Your task to perform on an android device: change timer sound Image 0: 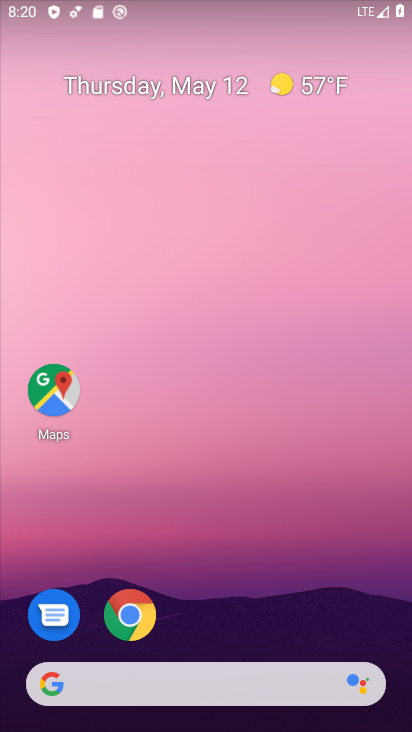
Step 0: drag from (277, 552) to (255, 1)
Your task to perform on an android device: change timer sound Image 1: 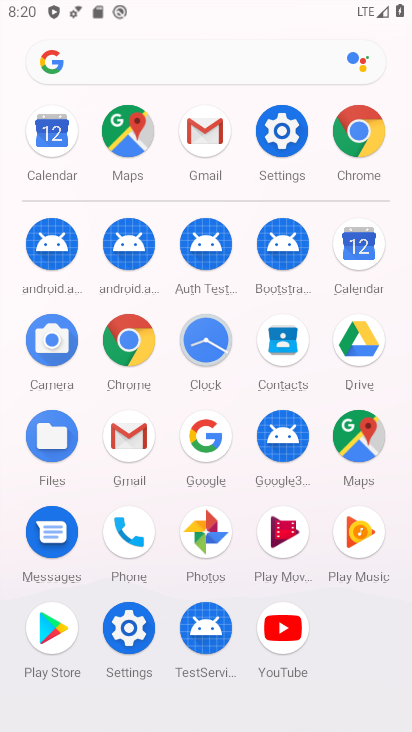
Step 1: drag from (10, 561) to (7, 305)
Your task to perform on an android device: change timer sound Image 2: 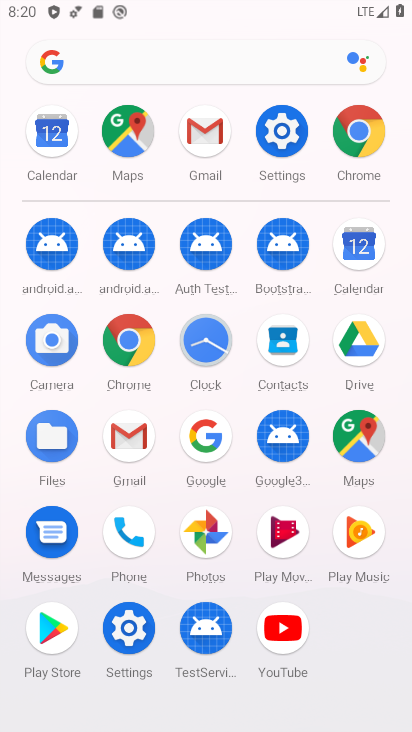
Step 2: click (205, 333)
Your task to perform on an android device: change timer sound Image 3: 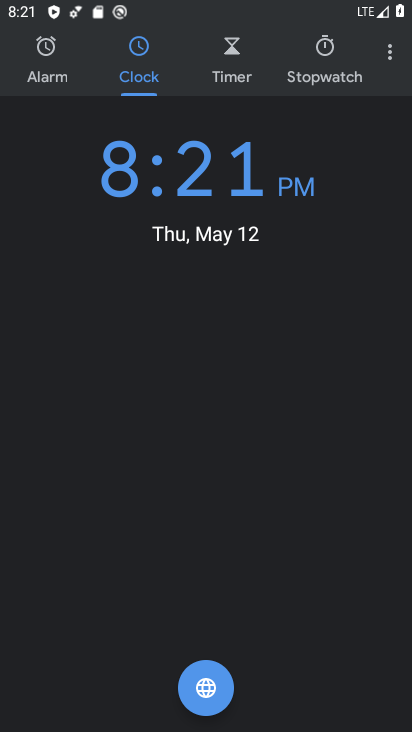
Step 3: drag from (393, 57) to (275, 109)
Your task to perform on an android device: change timer sound Image 4: 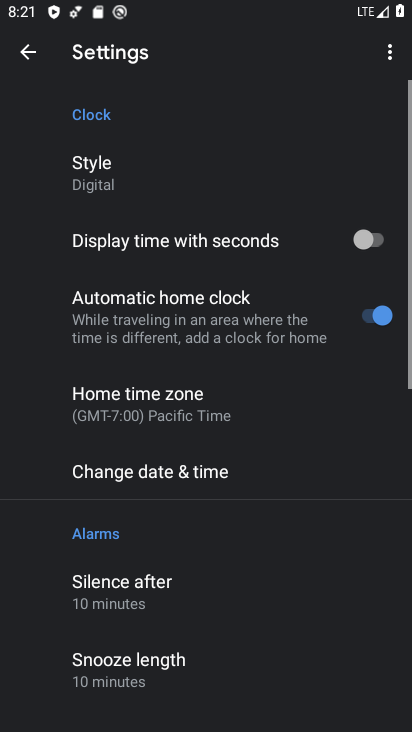
Step 4: drag from (252, 547) to (242, 185)
Your task to perform on an android device: change timer sound Image 5: 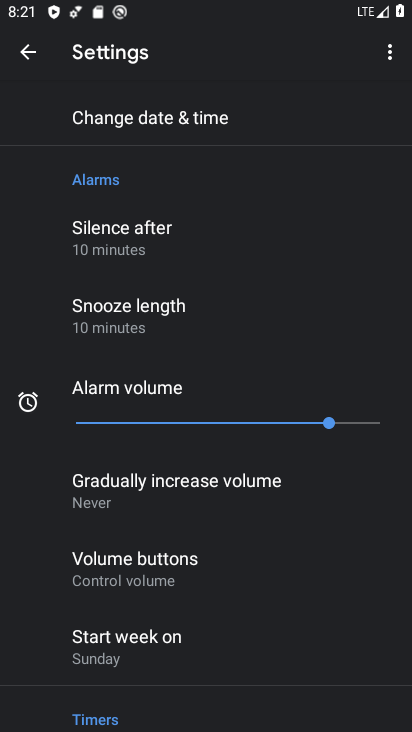
Step 5: drag from (235, 638) to (233, 186)
Your task to perform on an android device: change timer sound Image 6: 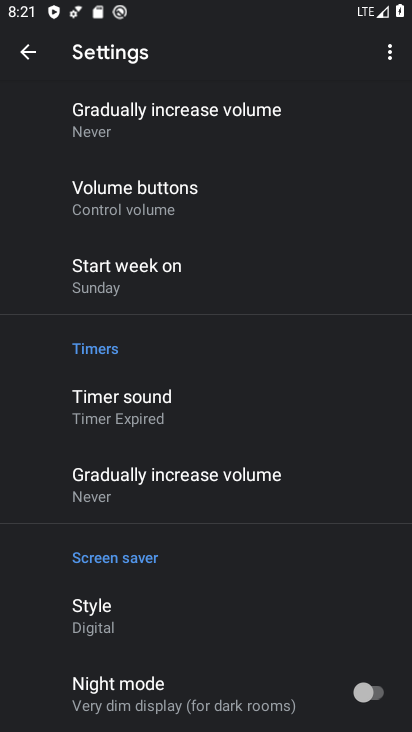
Step 6: click (172, 413)
Your task to perform on an android device: change timer sound Image 7: 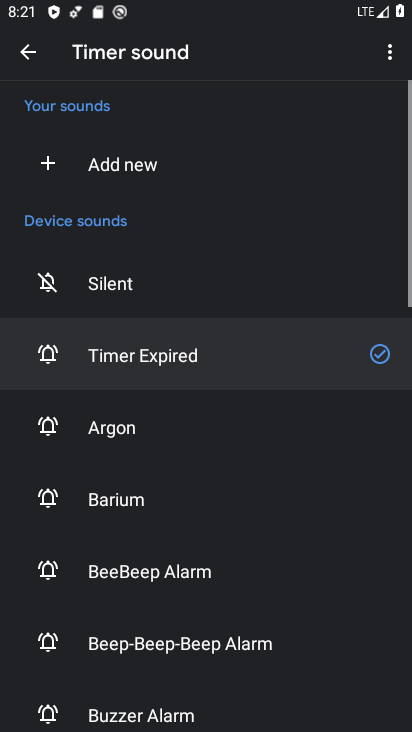
Step 7: click (164, 570)
Your task to perform on an android device: change timer sound Image 8: 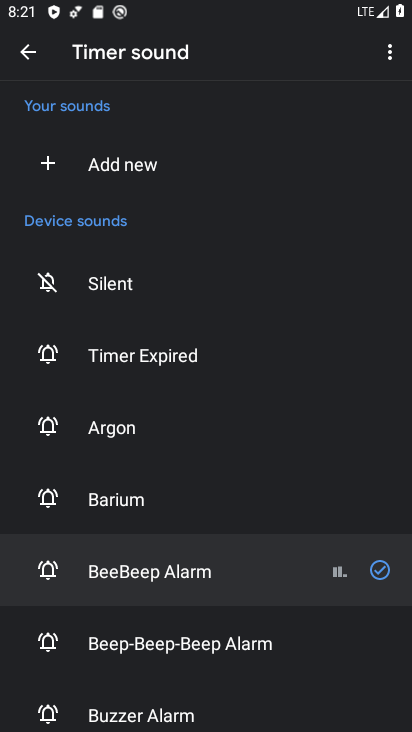
Step 8: task complete